Your task to perform on an android device: empty trash in the gmail app Image 0: 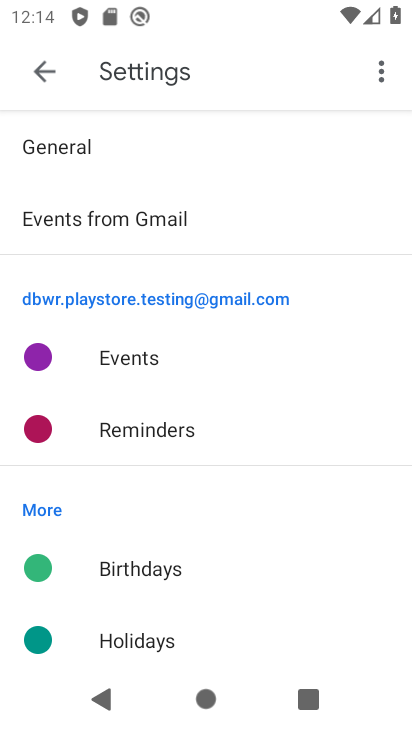
Step 0: press home button
Your task to perform on an android device: empty trash in the gmail app Image 1: 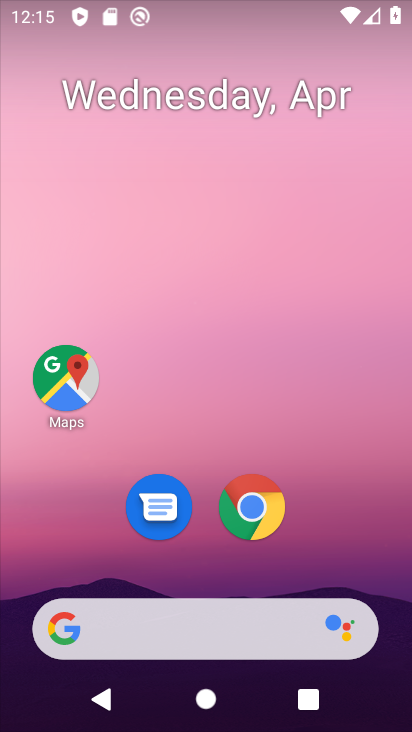
Step 1: drag from (218, 572) to (194, 152)
Your task to perform on an android device: empty trash in the gmail app Image 2: 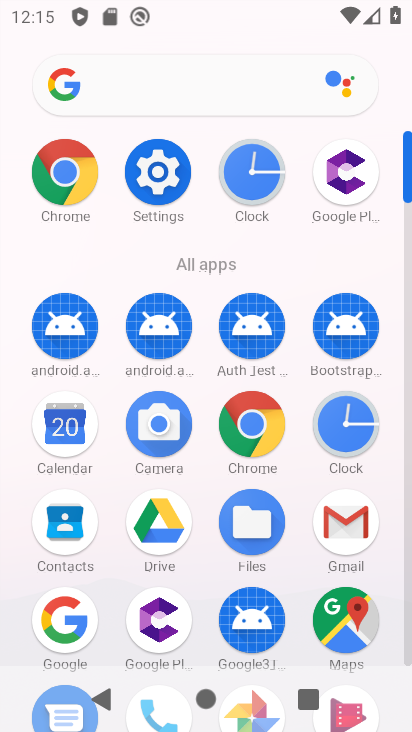
Step 2: click (342, 536)
Your task to perform on an android device: empty trash in the gmail app Image 3: 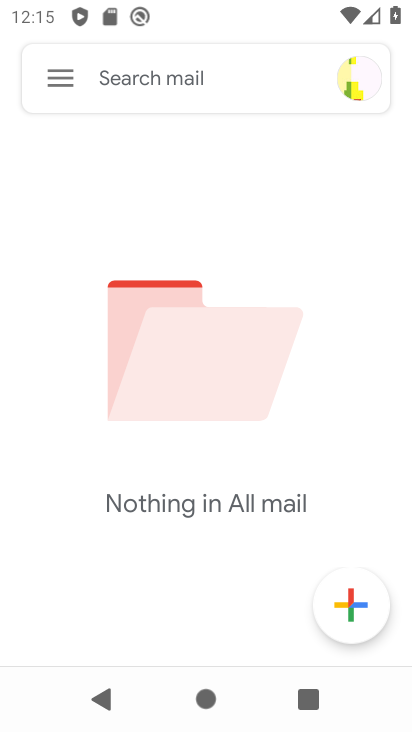
Step 3: click (64, 86)
Your task to perform on an android device: empty trash in the gmail app Image 4: 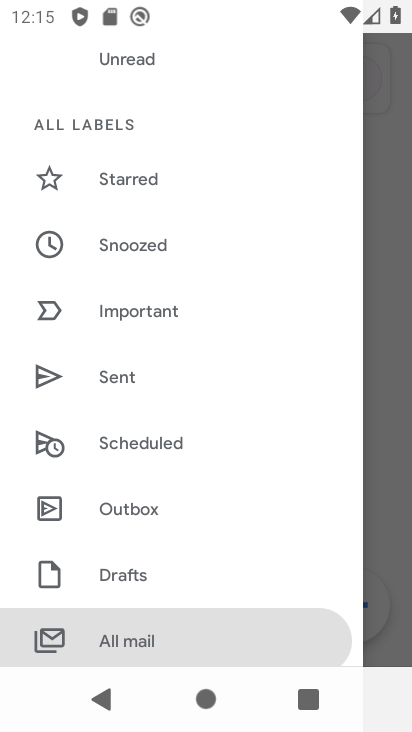
Step 4: drag from (204, 564) to (223, 195)
Your task to perform on an android device: empty trash in the gmail app Image 5: 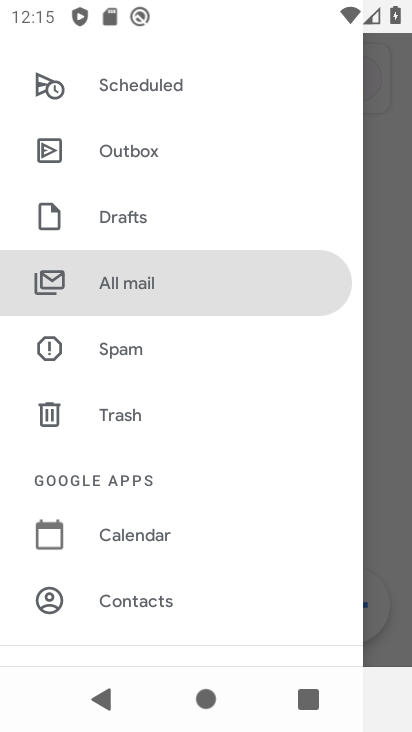
Step 5: click (139, 402)
Your task to perform on an android device: empty trash in the gmail app Image 6: 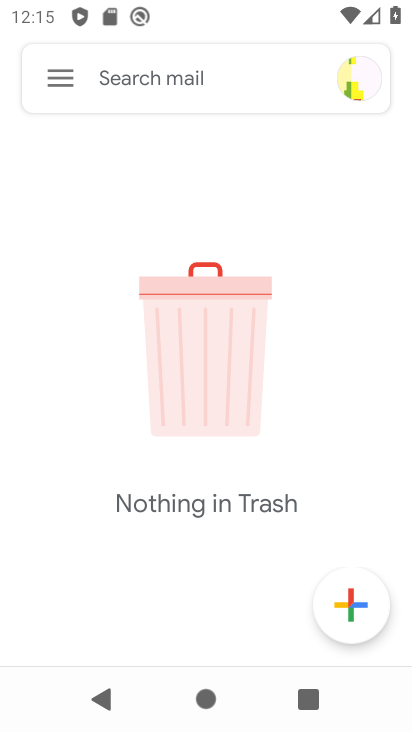
Step 6: task complete